Your task to perform on an android device: turn on airplane mode Image 0: 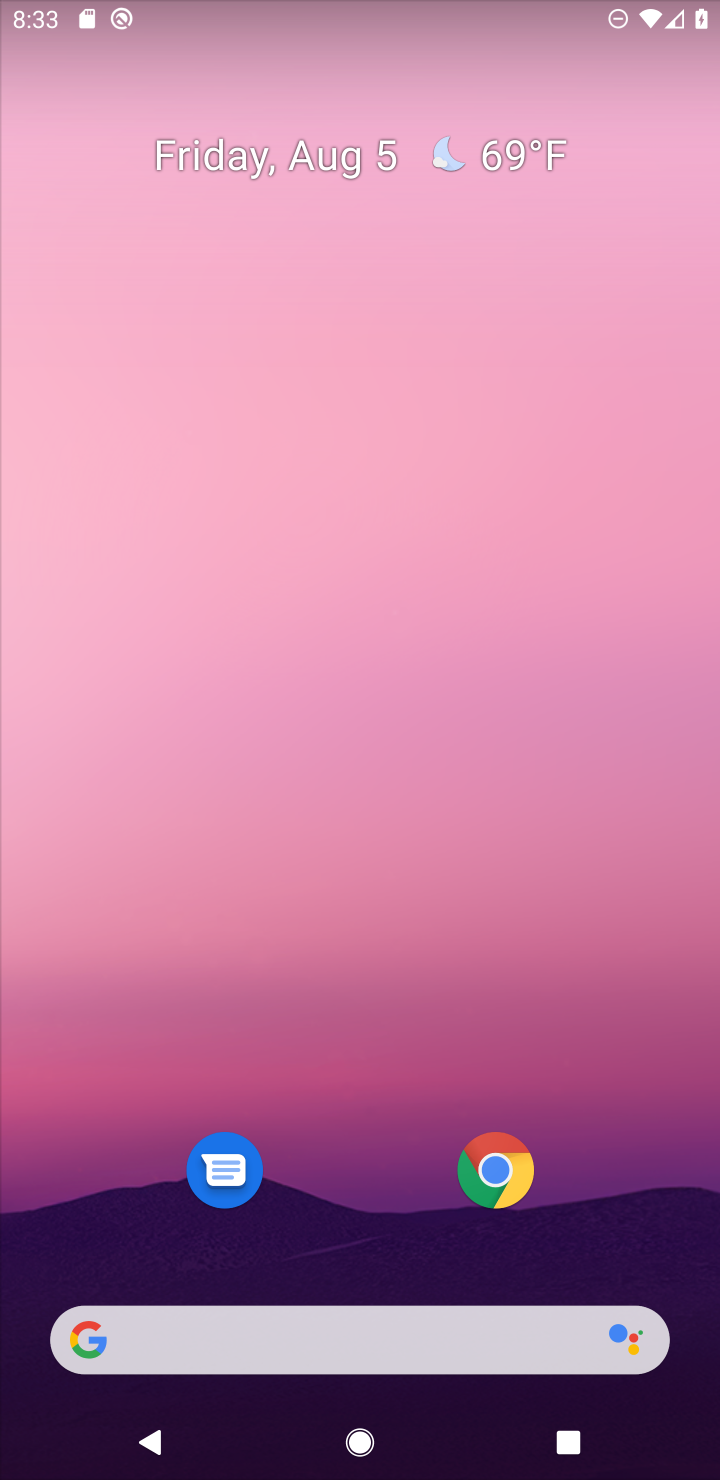
Step 0: drag from (641, 1233) to (559, 82)
Your task to perform on an android device: turn on airplane mode Image 1: 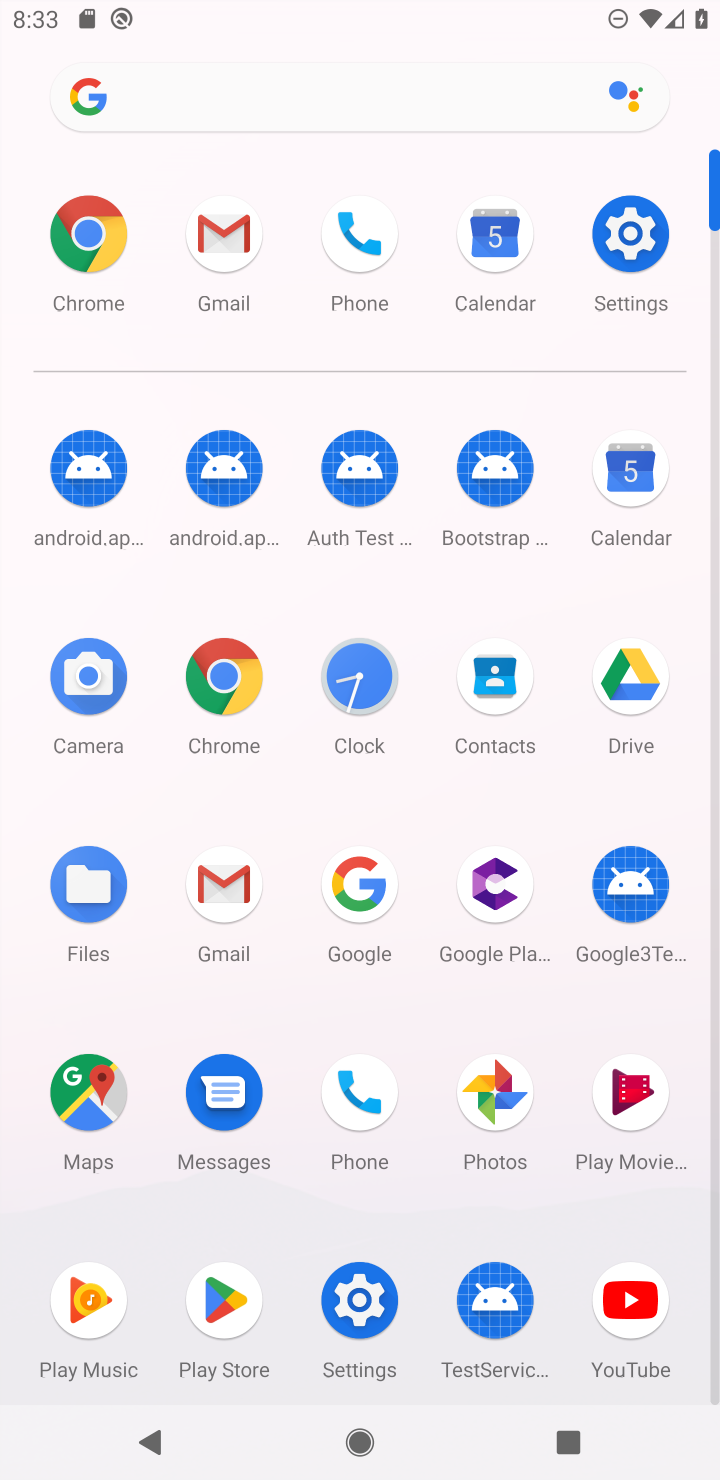
Step 1: click (360, 1298)
Your task to perform on an android device: turn on airplane mode Image 2: 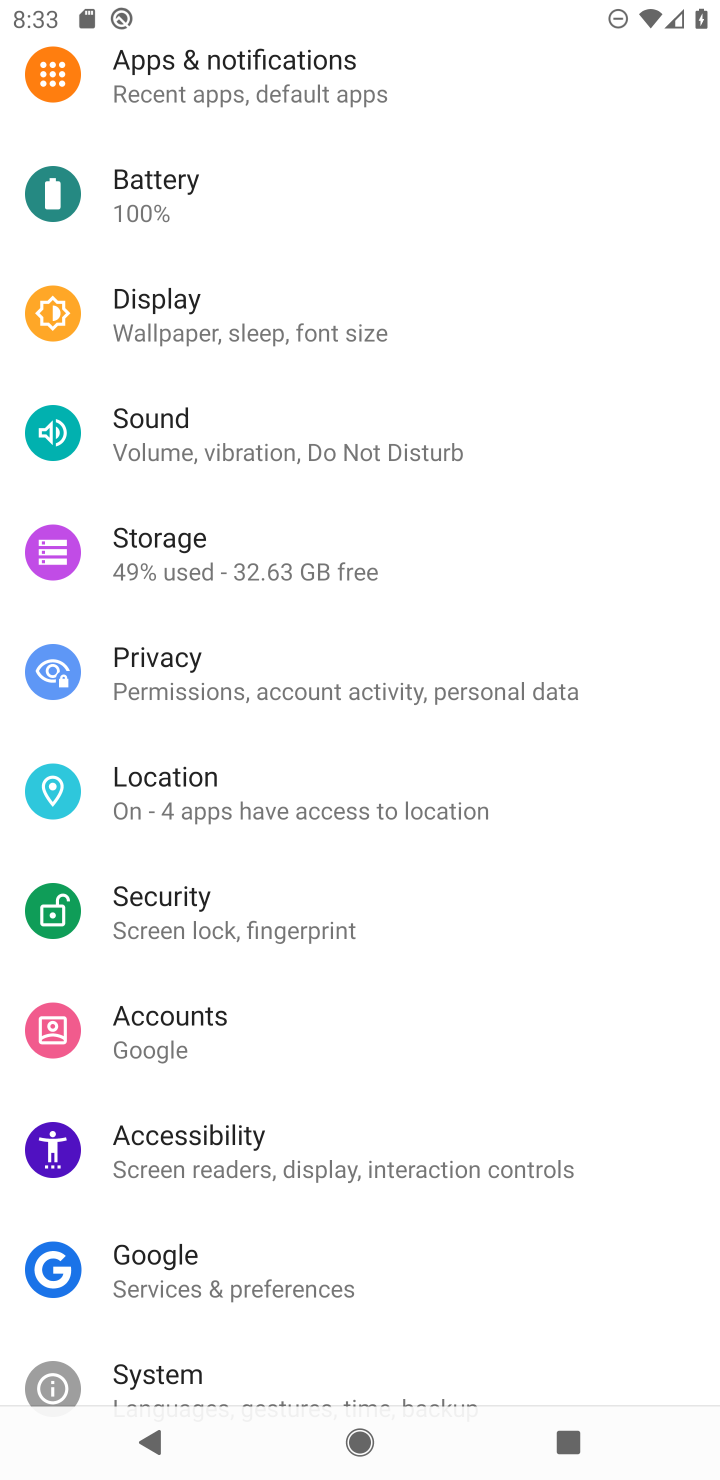
Step 2: drag from (601, 214) to (563, 746)
Your task to perform on an android device: turn on airplane mode Image 3: 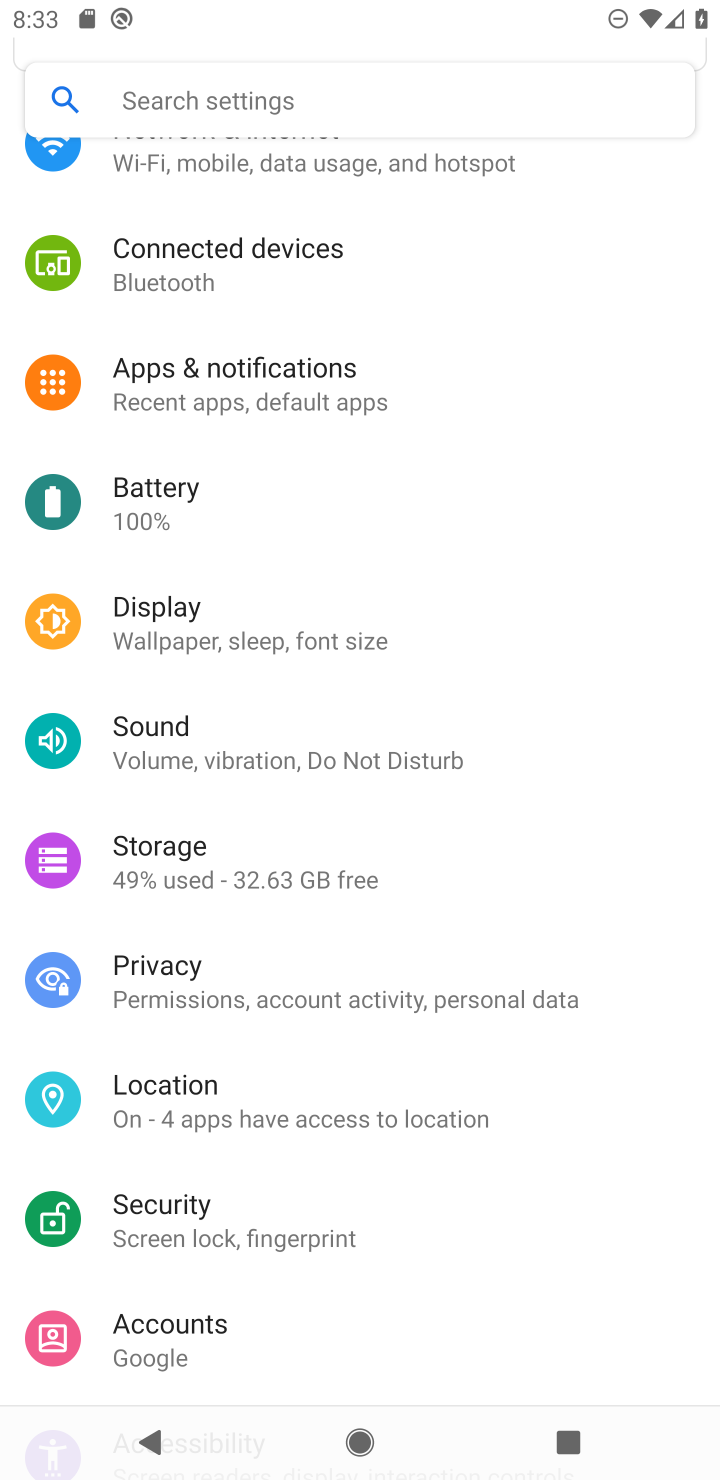
Step 3: drag from (545, 256) to (592, 975)
Your task to perform on an android device: turn on airplane mode Image 4: 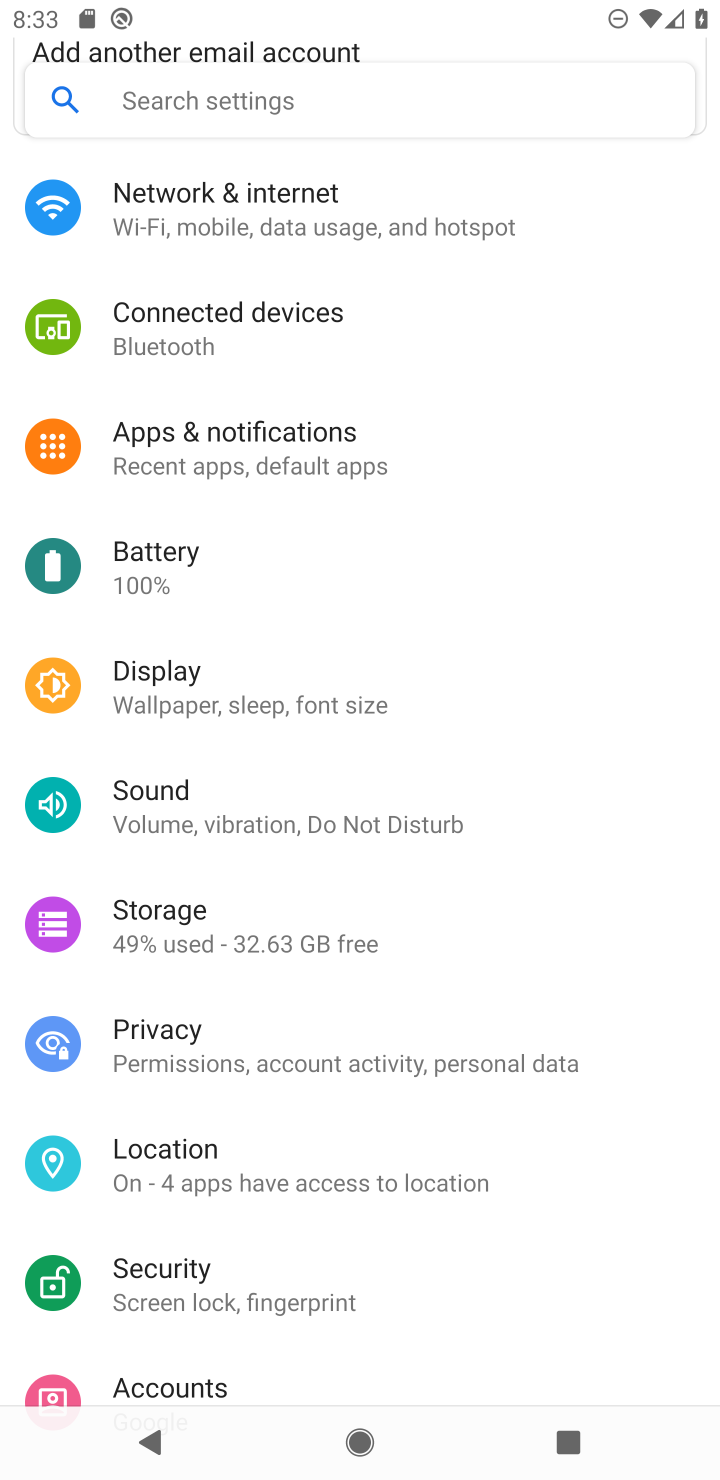
Step 4: click (140, 199)
Your task to perform on an android device: turn on airplane mode Image 5: 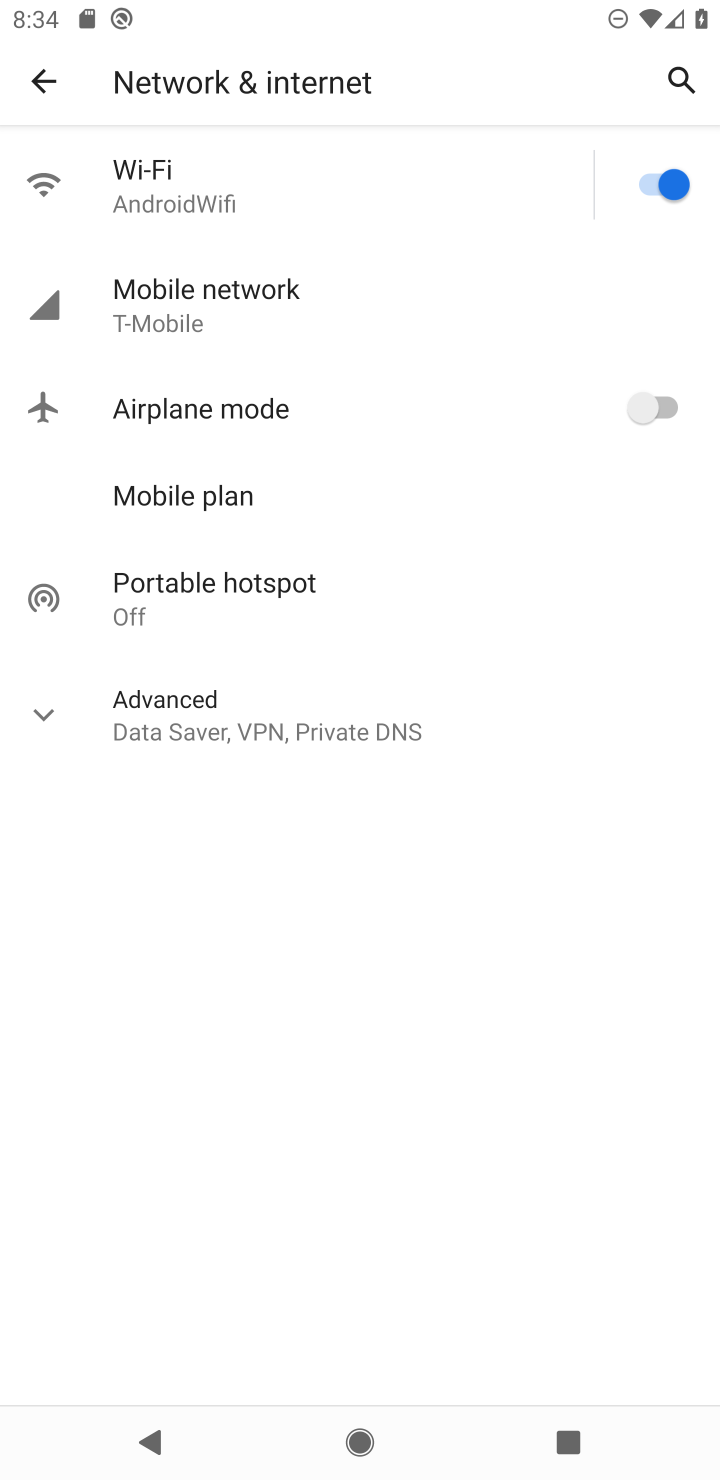
Step 5: click (673, 406)
Your task to perform on an android device: turn on airplane mode Image 6: 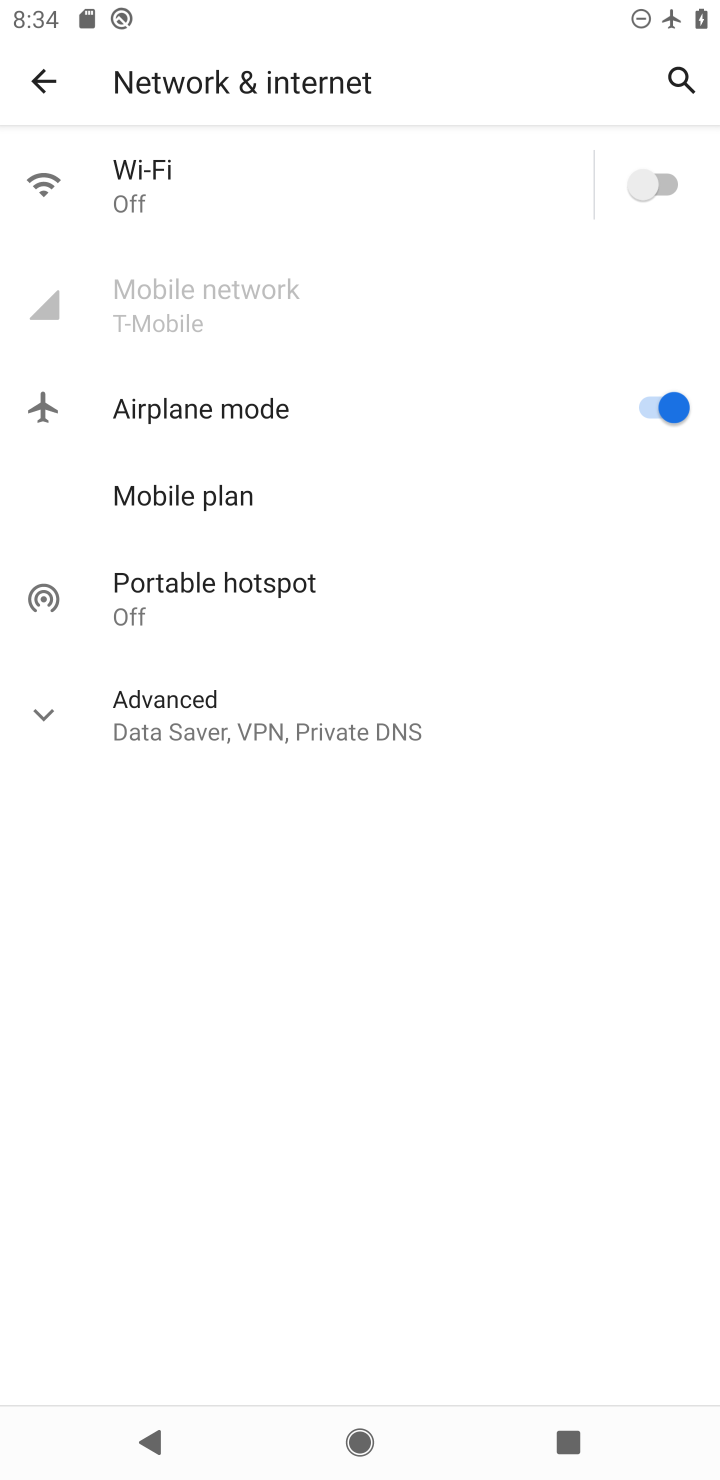
Step 6: task complete